Your task to perform on an android device: check android version Image 0: 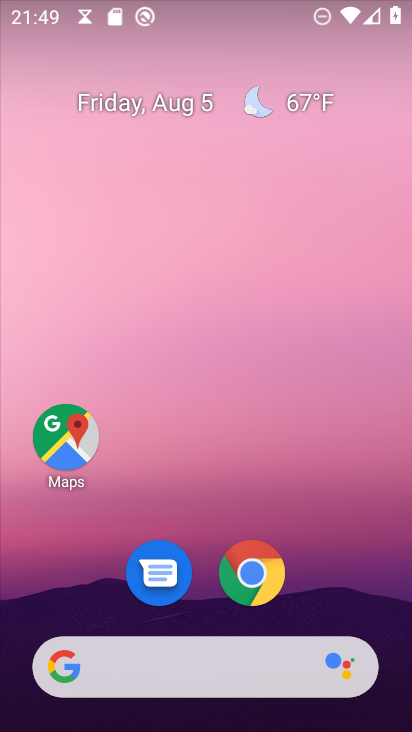
Step 0: drag from (169, 697) to (268, 116)
Your task to perform on an android device: check android version Image 1: 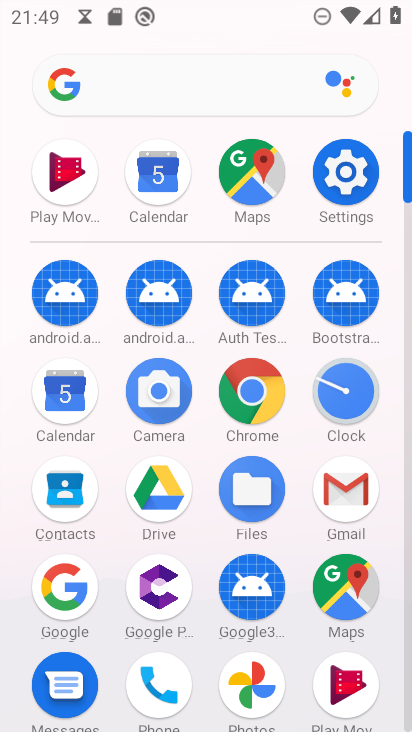
Step 1: click (346, 173)
Your task to perform on an android device: check android version Image 2: 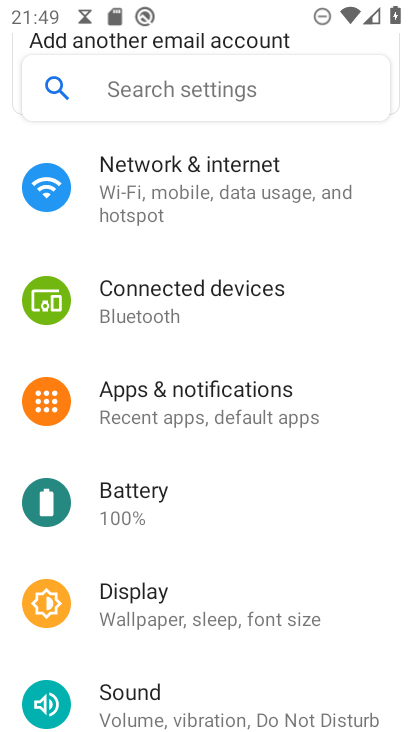
Step 2: drag from (199, 696) to (264, 360)
Your task to perform on an android device: check android version Image 3: 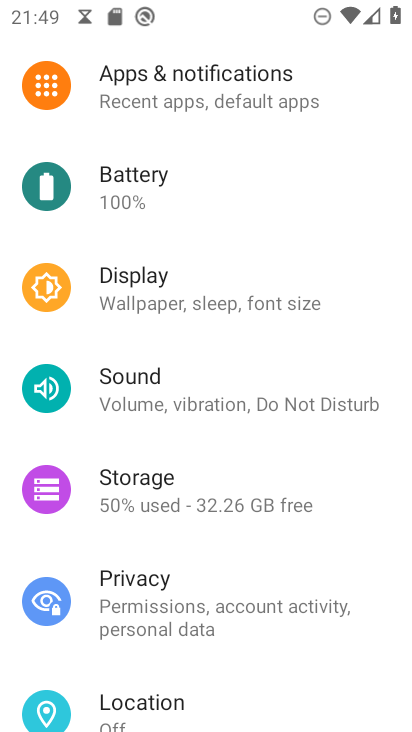
Step 3: drag from (192, 533) to (261, 375)
Your task to perform on an android device: check android version Image 4: 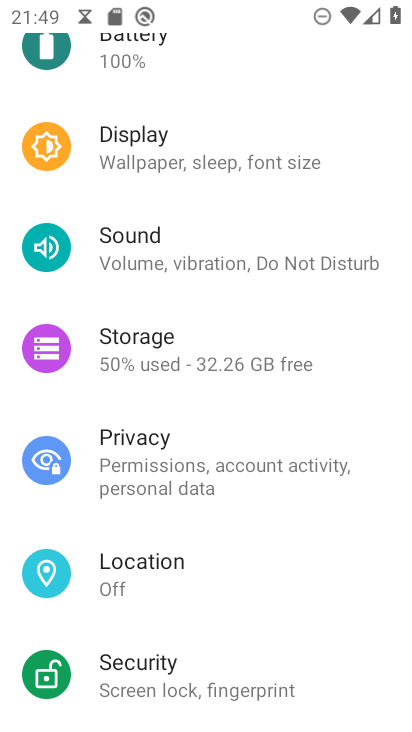
Step 4: drag from (182, 542) to (281, 368)
Your task to perform on an android device: check android version Image 5: 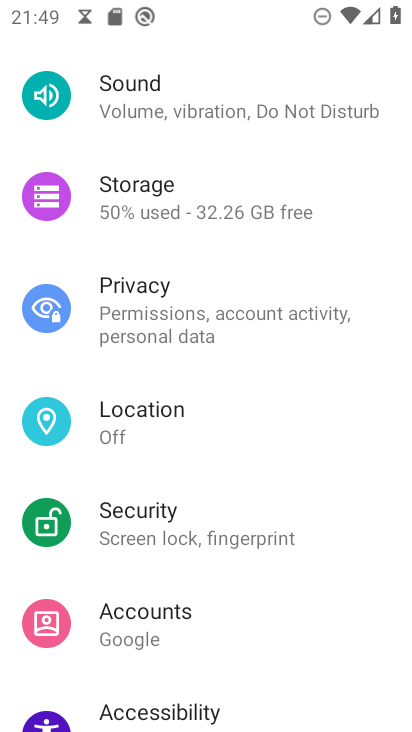
Step 5: drag from (204, 602) to (318, 381)
Your task to perform on an android device: check android version Image 6: 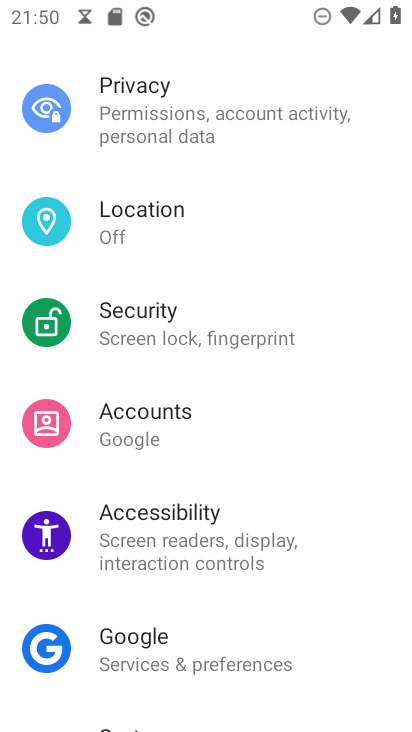
Step 6: drag from (218, 607) to (340, 393)
Your task to perform on an android device: check android version Image 7: 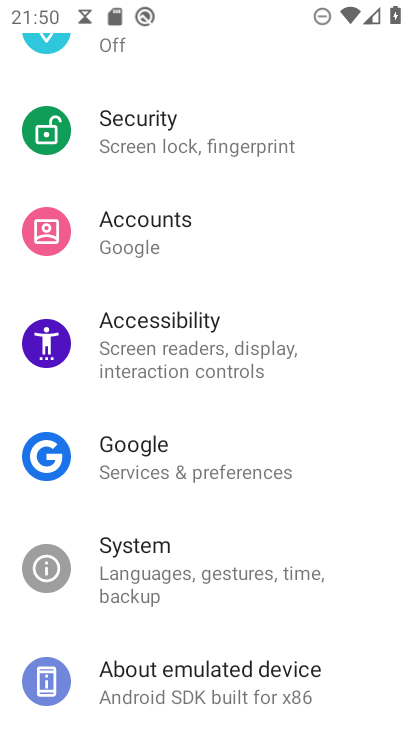
Step 7: click (229, 678)
Your task to perform on an android device: check android version Image 8: 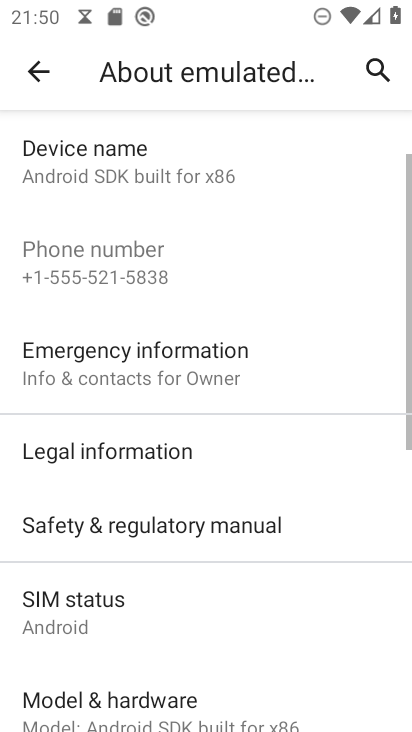
Step 8: drag from (193, 592) to (248, 459)
Your task to perform on an android device: check android version Image 9: 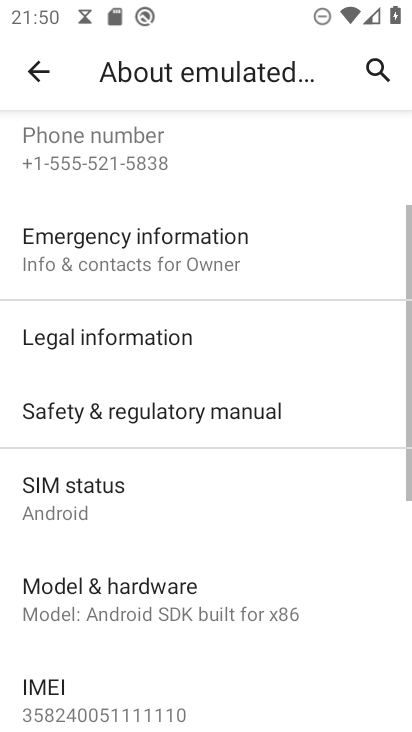
Step 9: drag from (174, 632) to (278, 434)
Your task to perform on an android device: check android version Image 10: 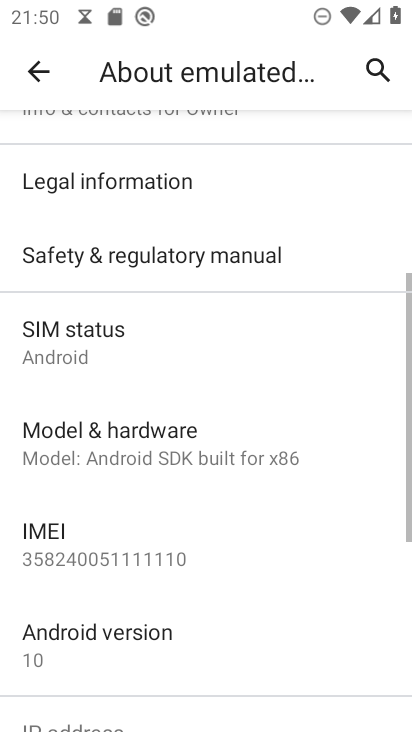
Step 10: click (125, 638)
Your task to perform on an android device: check android version Image 11: 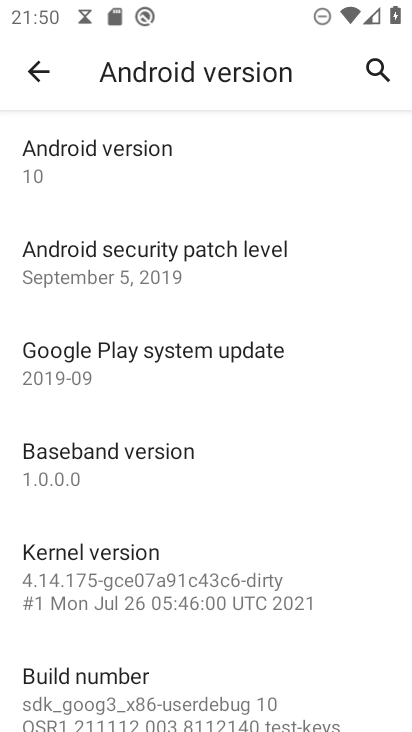
Step 11: click (148, 146)
Your task to perform on an android device: check android version Image 12: 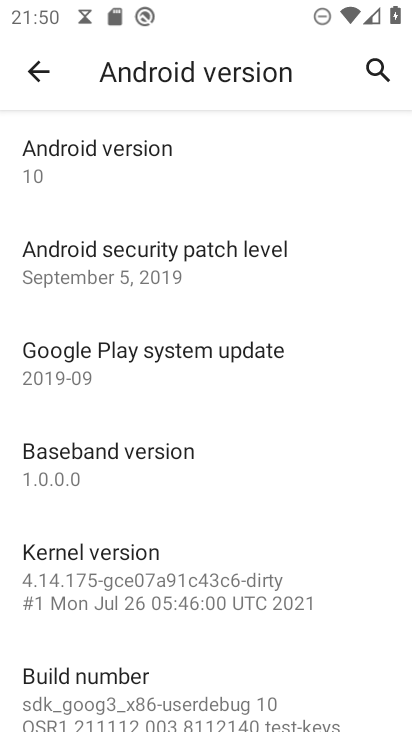
Step 12: task complete